Your task to perform on an android device: Open calendar and show me the second week of next month Image 0: 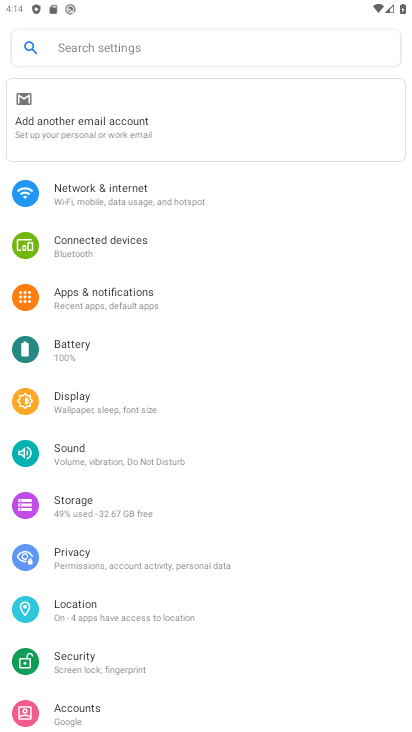
Step 0: press home button
Your task to perform on an android device: Open calendar and show me the second week of next month Image 1: 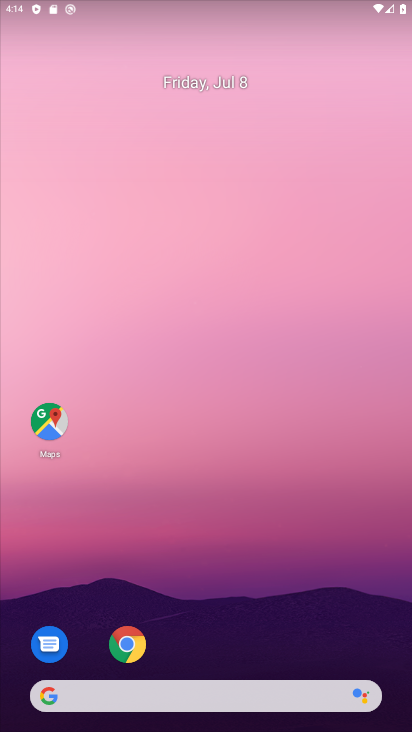
Step 1: drag from (233, 612) to (227, 270)
Your task to perform on an android device: Open calendar and show me the second week of next month Image 2: 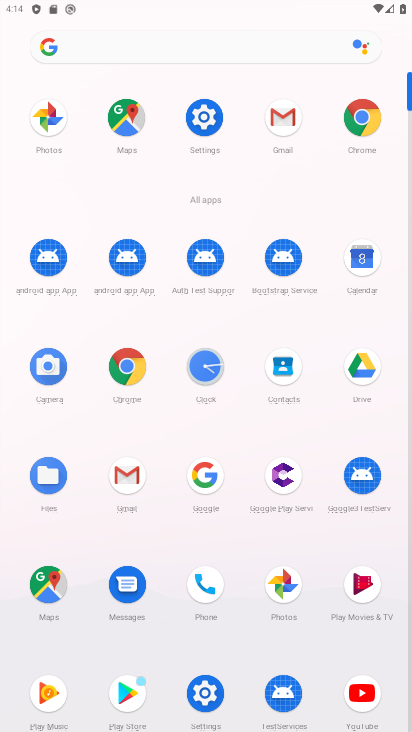
Step 2: click (352, 263)
Your task to perform on an android device: Open calendar and show me the second week of next month Image 3: 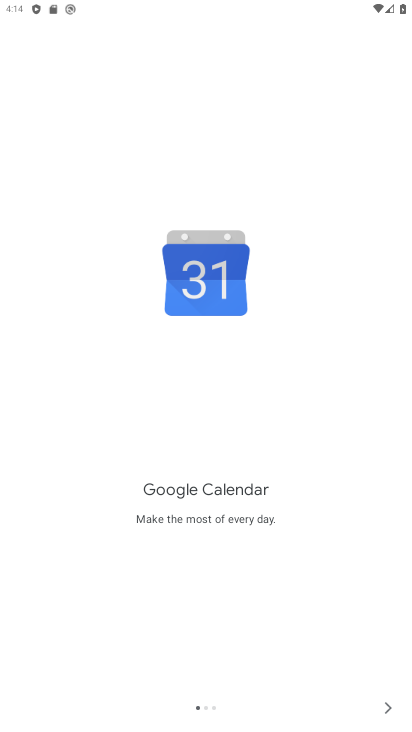
Step 3: click (383, 705)
Your task to perform on an android device: Open calendar and show me the second week of next month Image 4: 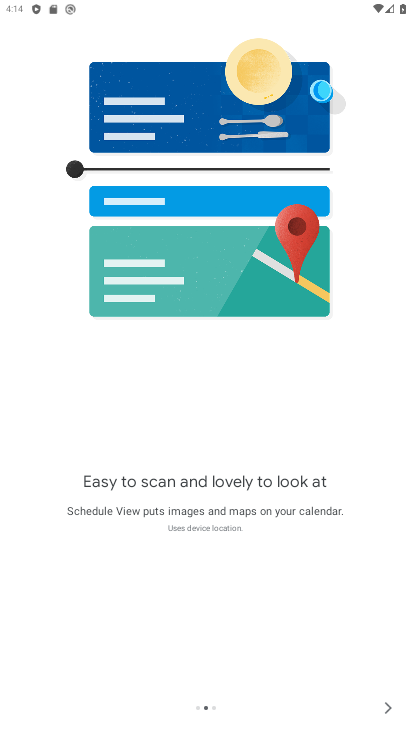
Step 4: click (383, 705)
Your task to perform on an android device: Open calendar and show me the second week of next month Image 5: 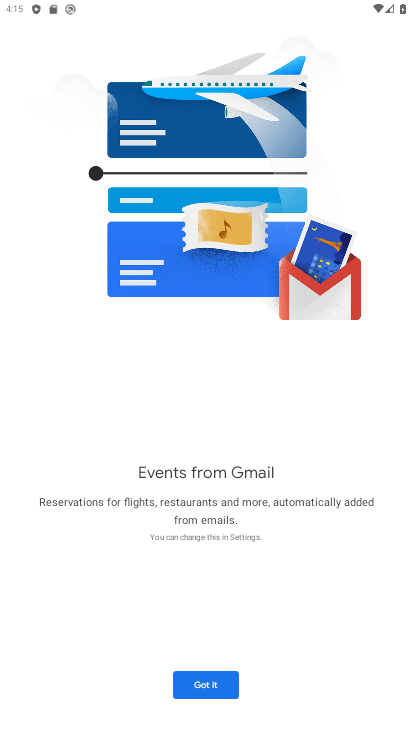
Step 5: click (233, 687)
Your task to perform on an android device: Open calendar and show me the second week of next month Image 6: 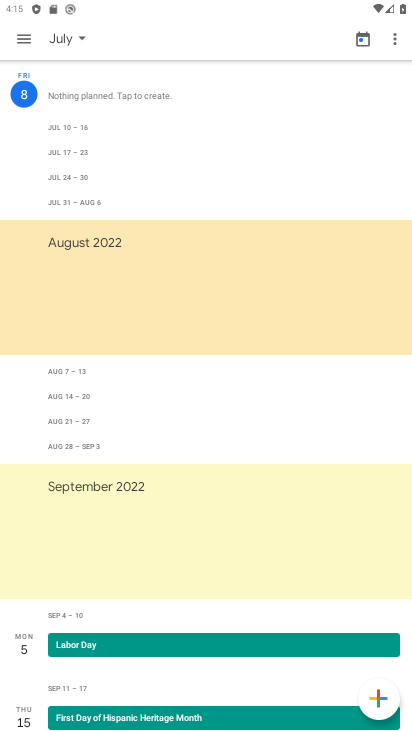
Step 6: click (389, 31)
Your task to perform on an android device: Open calendar and show me the second week of next month Image 7: 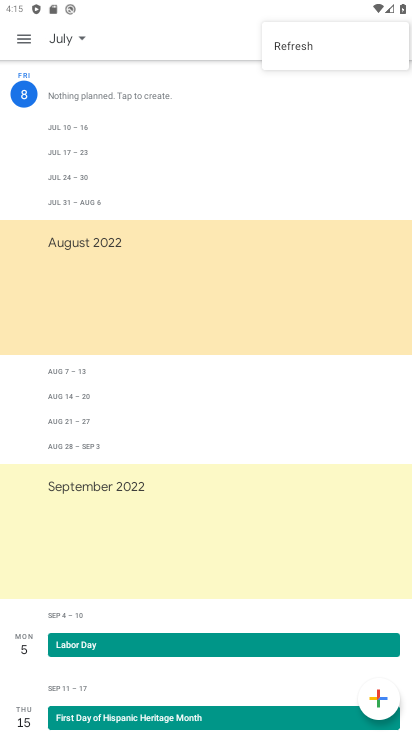
Step 7: click (249, 185)
Your task to perform on an android device: Open calendar and show me the second week of next month Image 8: 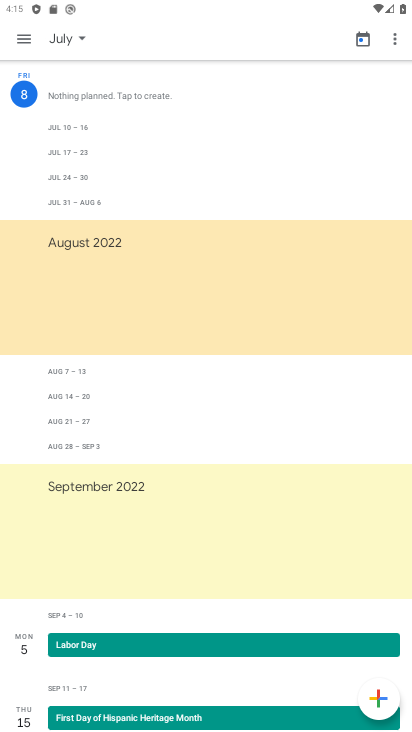
Step 8: click (71, 44)
Your task to perform on an android device: Open calendar and show me the second week of next month Image 9: 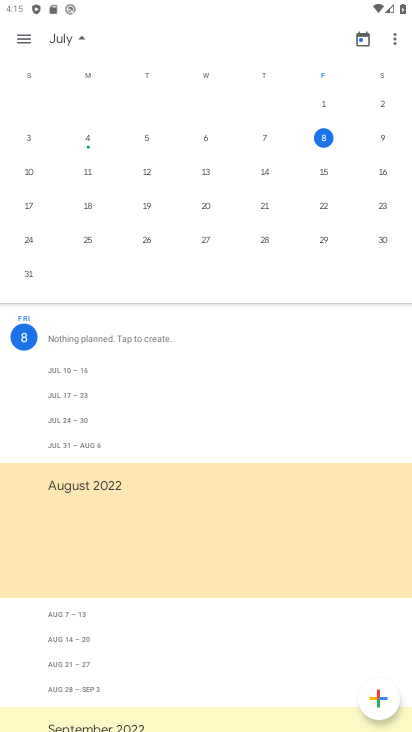
Step 9: drag from (347, 160) to (52, 166)
Your task to perform on an android device: Open calendar and show me the second week of next month Image 10: 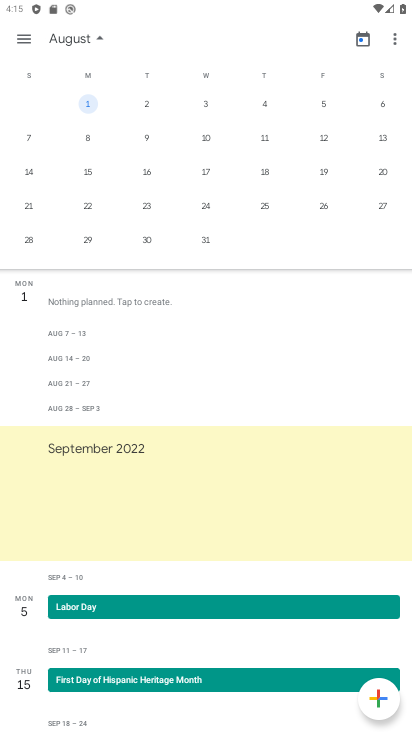
Step 10: click (78, 138)
Your task to perform on an android device: Open calendar and show me the second week of next month Image 11: 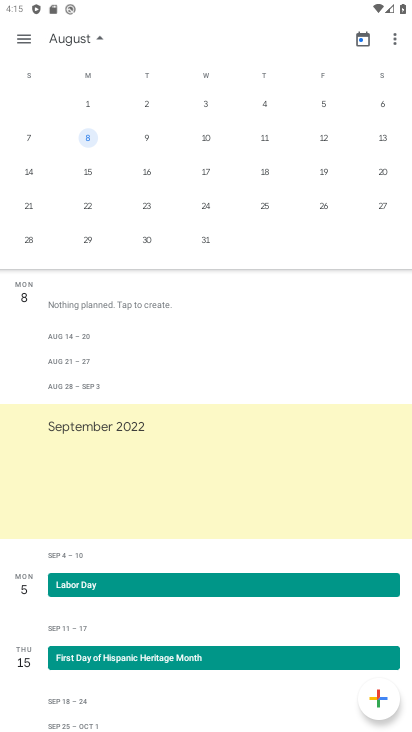
Step 11: click (27, 35)
Your task to perform on an android device: Open calendar and show me the second week of next month Image 12: 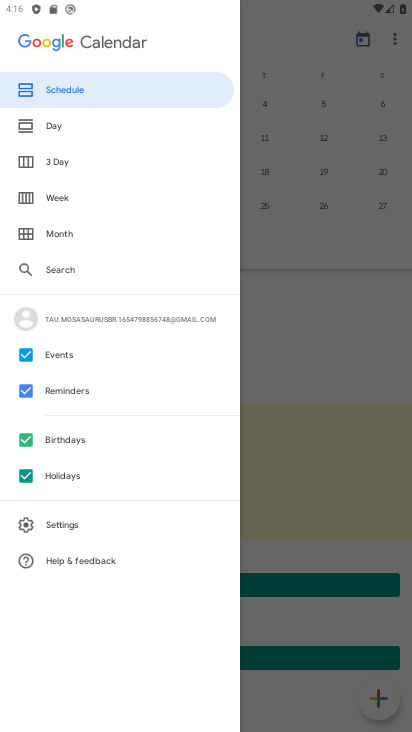
Step 12: click (298, 167)
Your task to perform on an android device: Open calendar and show me the second week of next month Image 13: 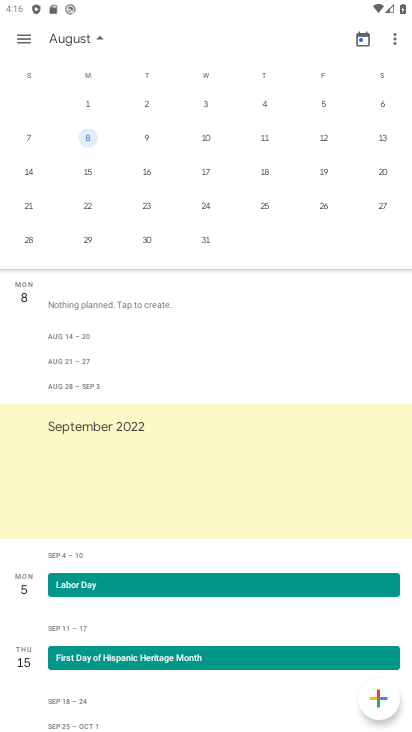
Step 13: task complete